Your task to perform on an android device: Go to privacy settings Image 0: 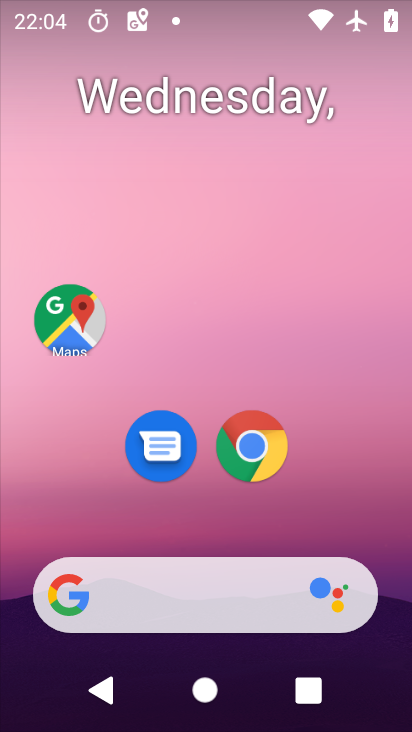
Step 0: press home button
Your task to perform on an android device: Go to privacy settings Image 1: 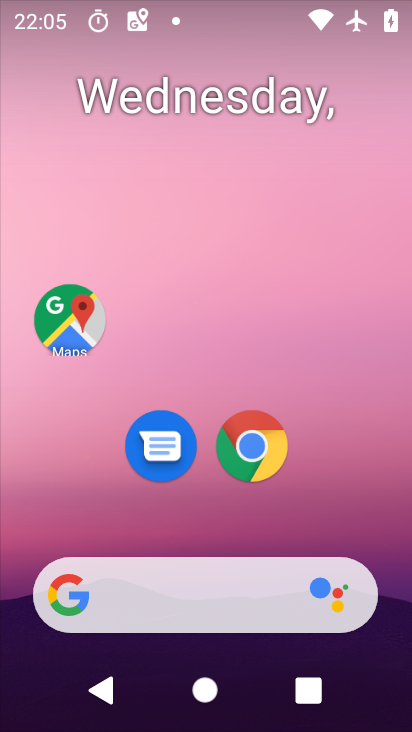
Step 1: drag from (172, 605) to (322, 119)
Your task to perform on an android device: Go to privacy settings Image 2: 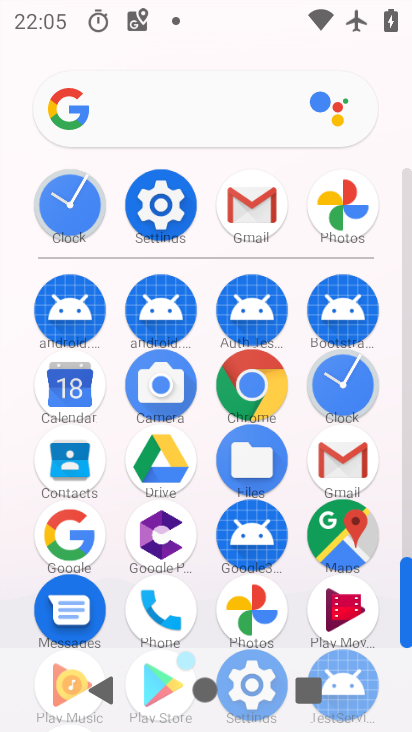
Step 2: click (157, 194)
Your task to perform on an android device: Go to privacy settings Image 3: 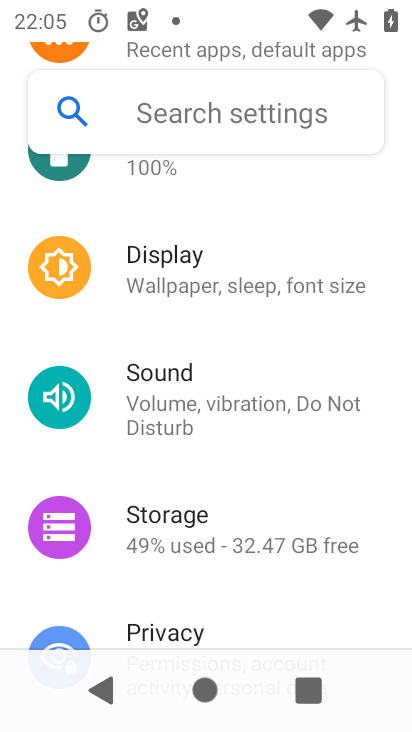
Step 3: drag from (207, 613) to (335, 335)
Your task to perform on an android device: Go to privacy settings Image 4: 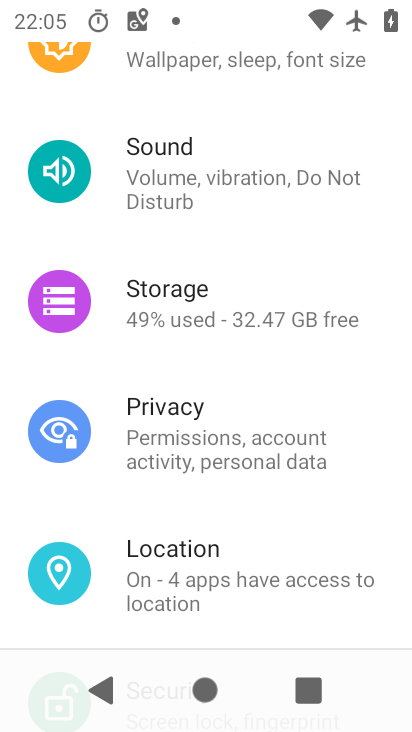
Step 4: click (179, 421)
Your task to perform on an android device: Go to privacy settings Image 5: 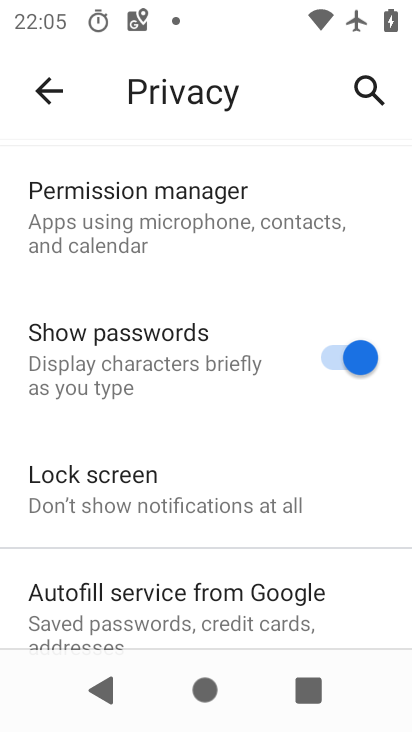
Step 5: task complete